Your task to perform on an android device: Set the phone to "Do not disturb". Image 0: 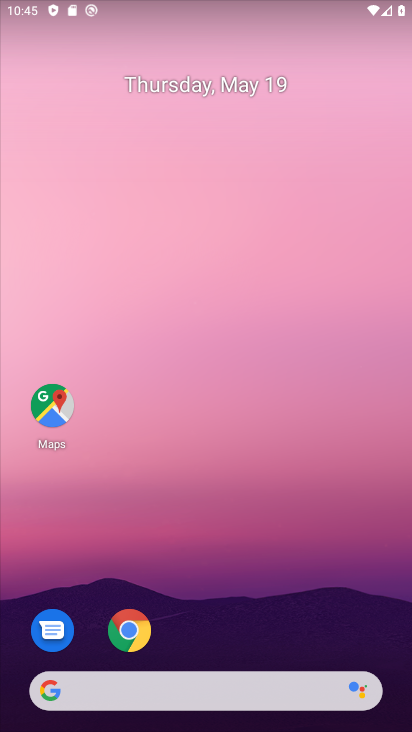
Step 0: drag from (250, 577) to (167, 248)
Your task to perform on an android device: Set the phone to "Do not disturb". Image 1: 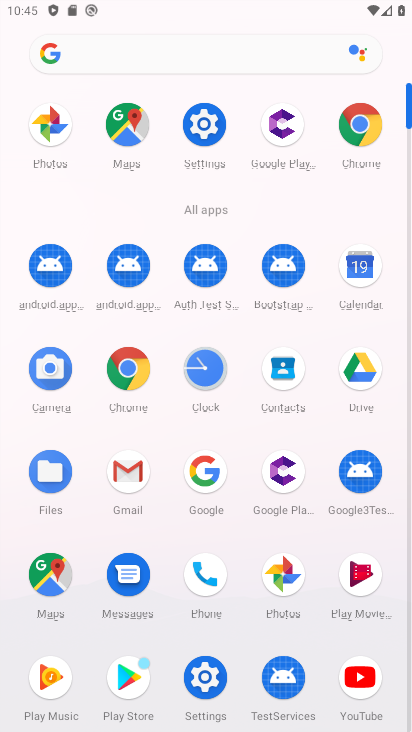
Step 1: click (204, 116)
Your task to perform on an android device: Set the phone to "Do not disturb". Image 2: 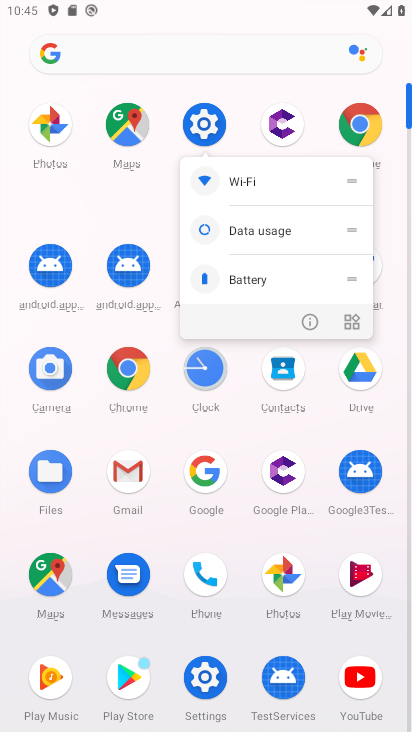
Step 2: click (201, 139)
Your task to perform on an android device: Set the phone to "Do not disturb". Image 3: 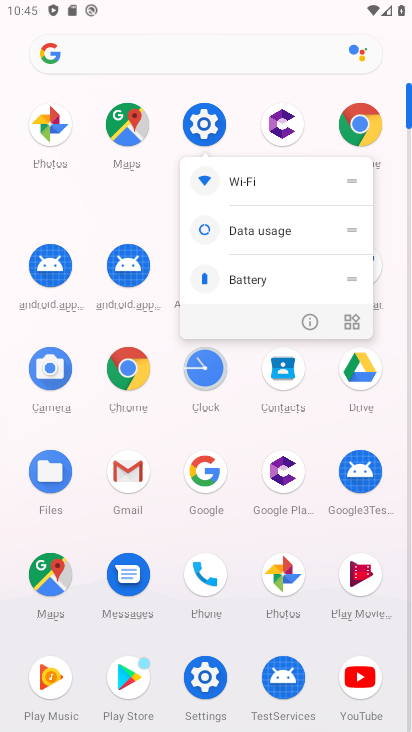
Step 3: click (201, 134)
Your task to perform on an android device: Set the phone to "Do not disturb". Image 4: 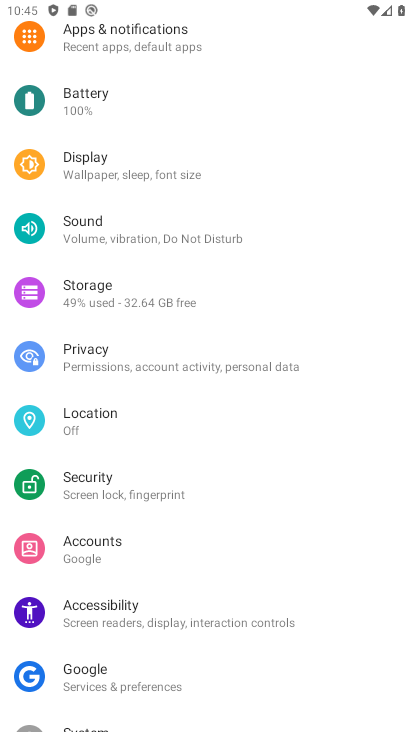
Step 4: click (93, 228)
Your task to perform on an android device: Set the phone to "Do not disturb". Image 5: 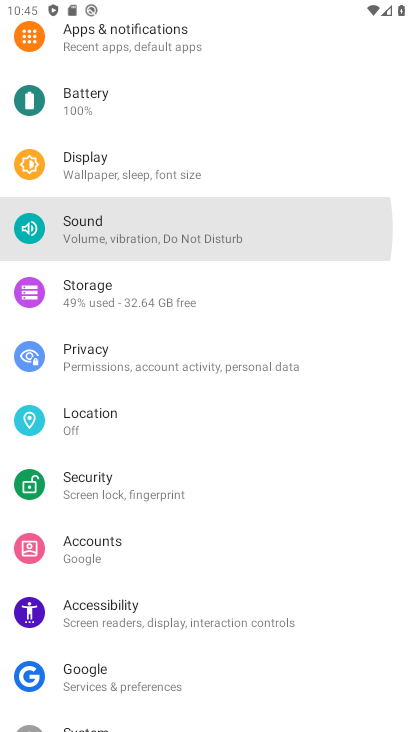
Step 5: click (92, 229)
Your task to perform on an android device: Set the phone to "Do not disturb". Image 6: 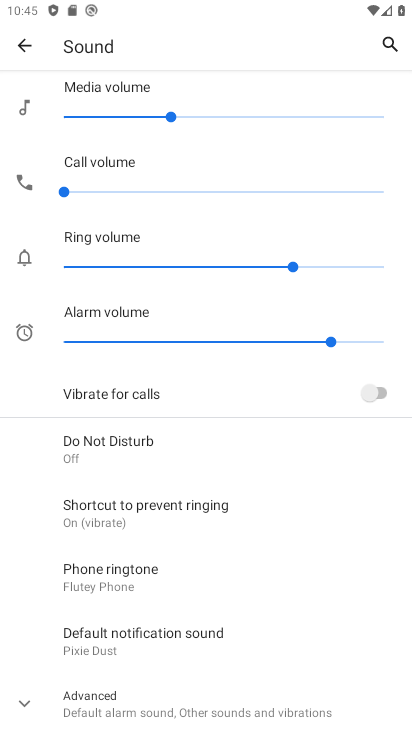
Step 6: drag from (166, 558) to (153, 204)
Your task to perform on an android device: Set the phone to "Do not disturb". Image 7: 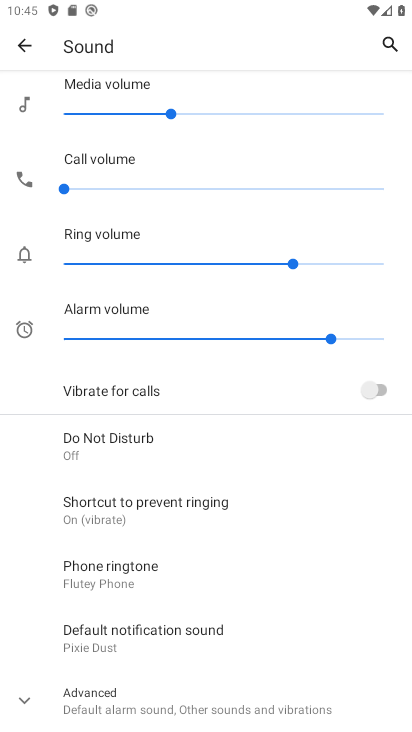
Step 7: click (104, 431)
Your task to perform on an android device: Set the phone to "Do not disturb". Image 8: 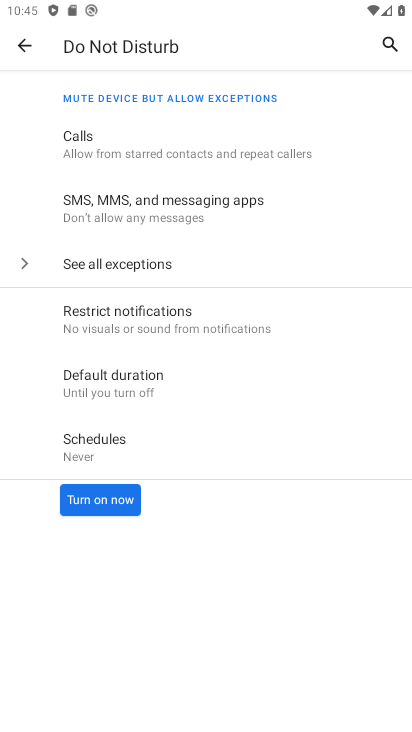
Step 8: click (131, 441)
Your task to perform on an android device: Set the phone to "Do not disturb". Image 9: 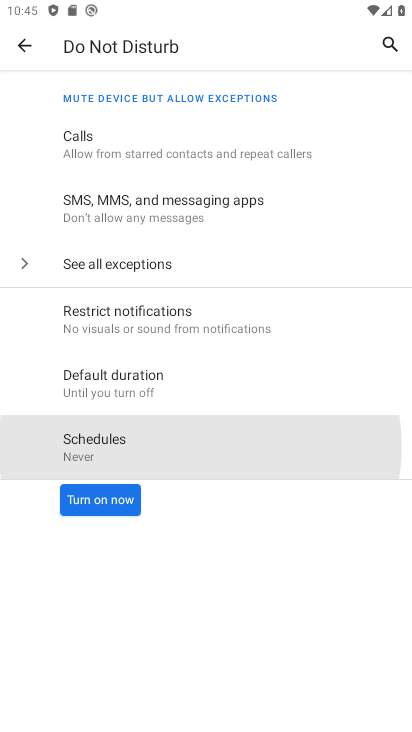
Step 9: click (131, 441)
Your task to perform on an android device: Set the phone to "Do not disturb". Image 10: 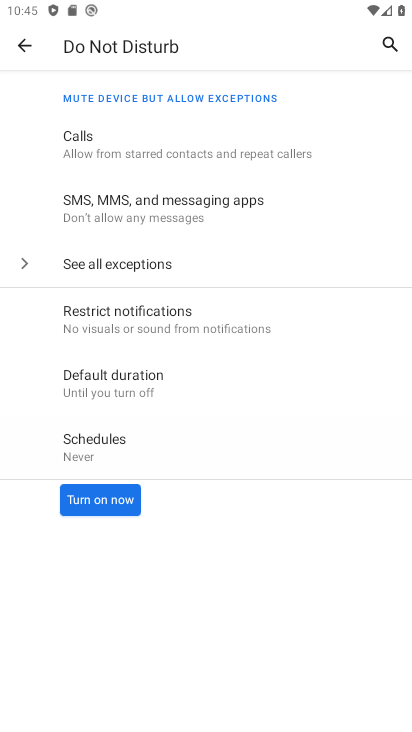
Step 10: click (130, 440)
Your task to perform on an android device: Set the phone to "Do not disturb". Image 11: 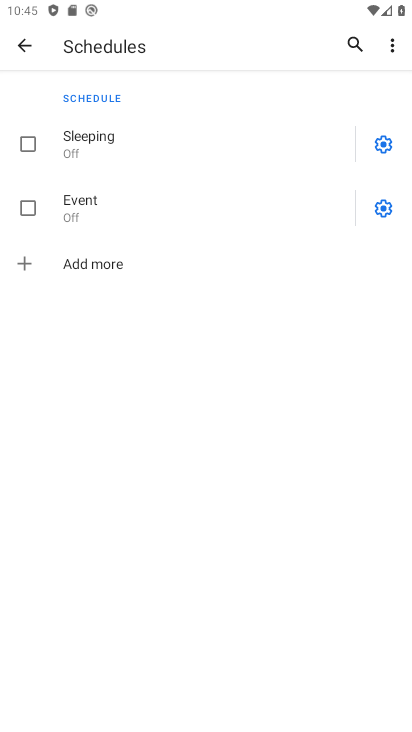
Step 11: click (20, 42)
Your task to perform on an android device: Set the phone to "Do not disturb". Image 12: 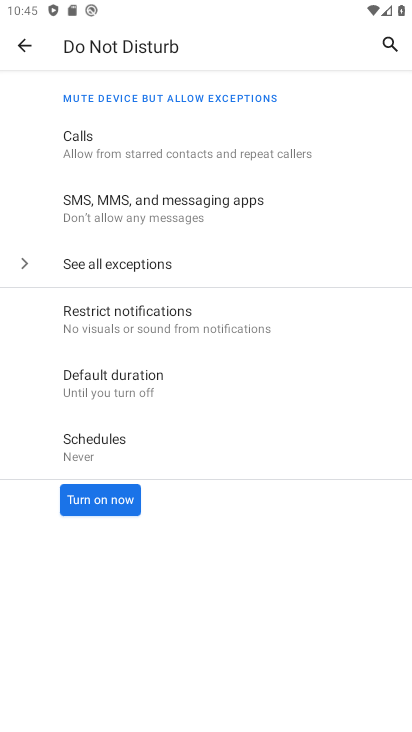
Step 12: click (92, 517)
Your task to perform on an android device: Set the phone to "Do not disturb". Image 13: 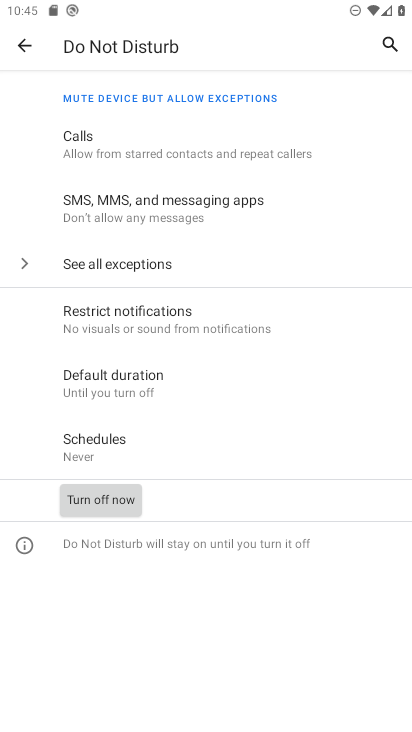
Step 13: task complete